Your task to perform on an android device: Play the last video I watched on Youtube Image 0: 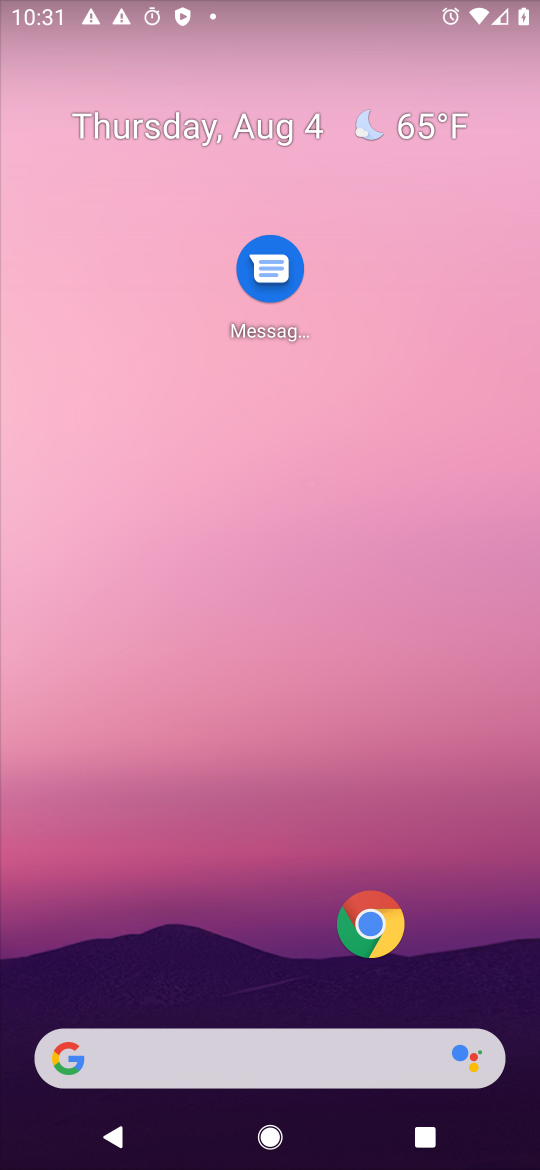
Step 0: drag from (250, 963) to (226, 181)
Your task to perform on an android device: Play the last video I watched on Youtube Image 1: 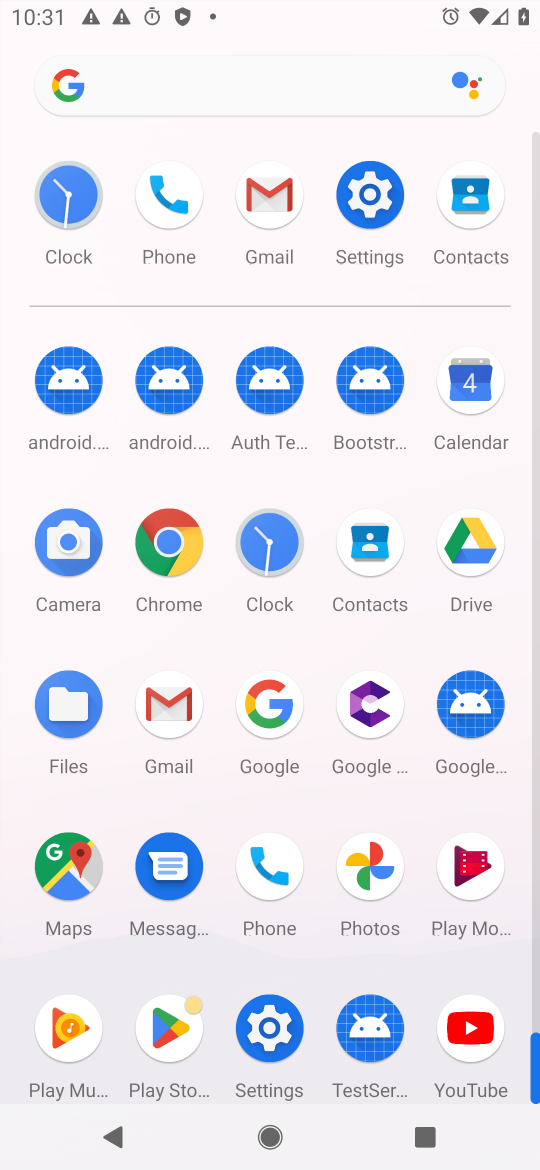
Step 1: click (461, 1033)
Your task to perform on an android device: Play the last video I watched on Youtube Image 2: 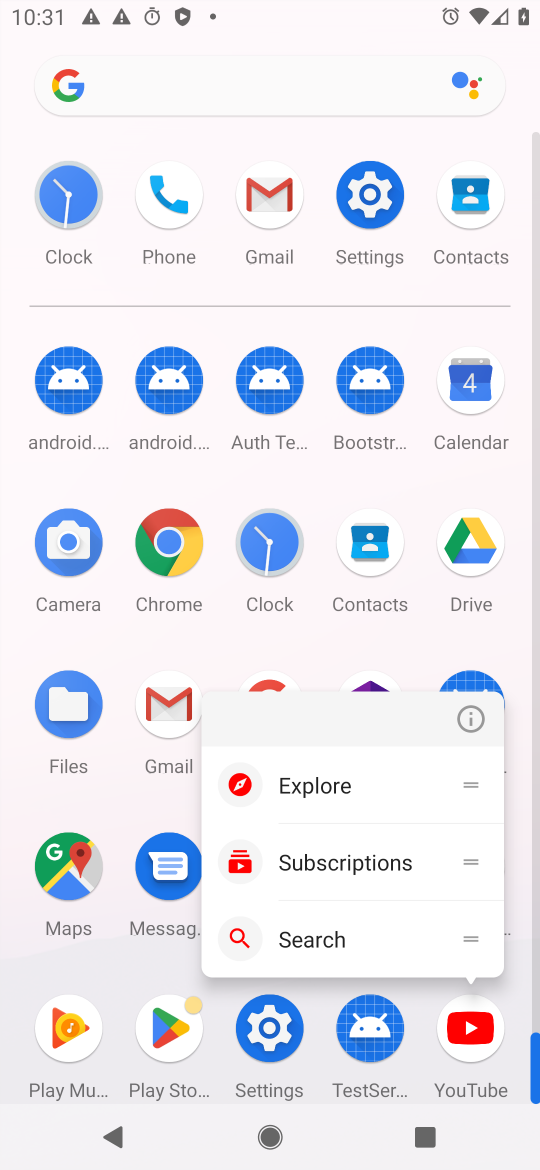
Step 2: click (464, 696)
Your task to perform on an android device: Play the last video I watched on Youtube Image 3: 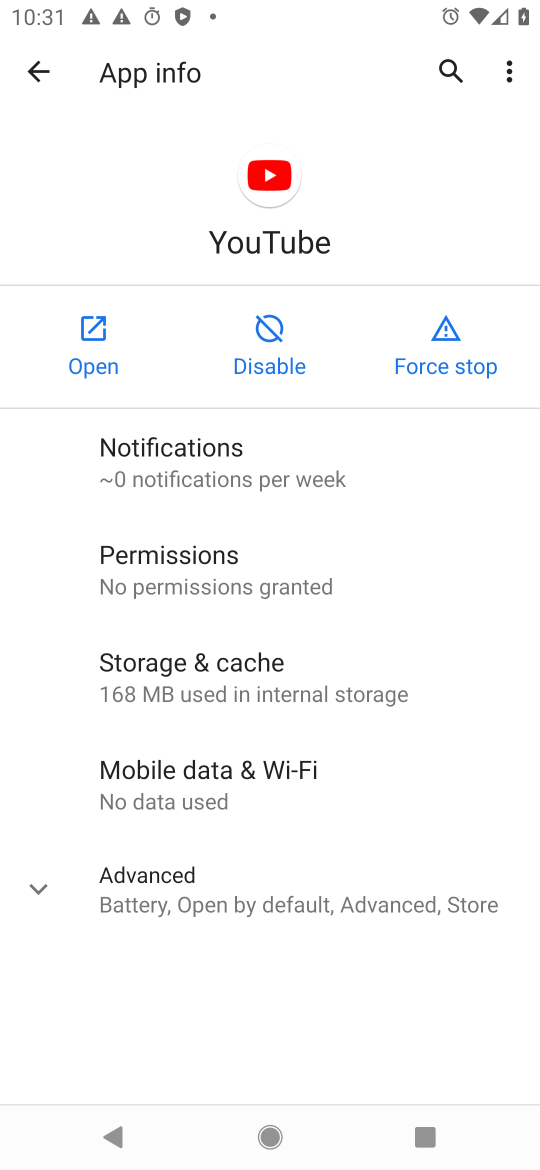
Step 3: click (95, 334)
Your task to perform on an android device: Play the last video I watched on Youtube Image 4: 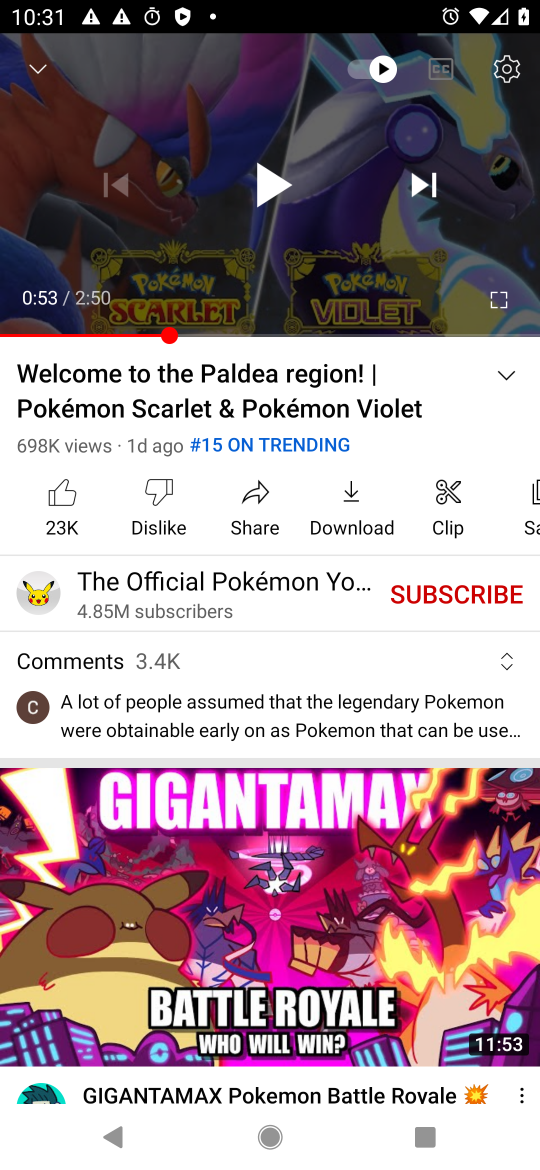
Step 4: drag from (270, 751) to (347, 317)
Your task to perform on an android device: Play the last video I watched on Youtube Image 5: 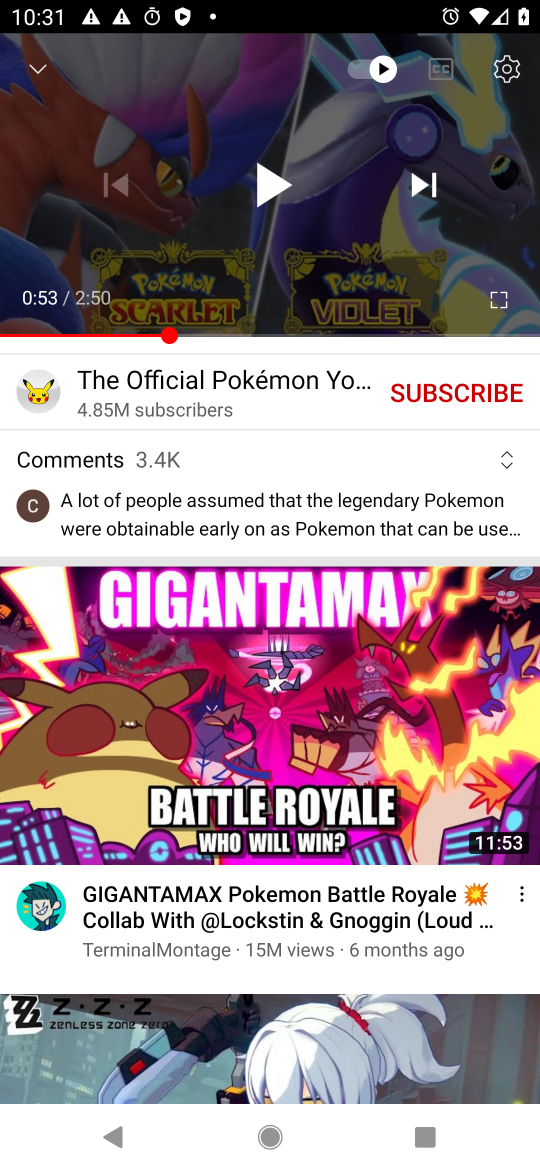
Step 5: drag from (207, 814) to (297, 432)
Your task to perform on an android device: Play the last video I watched on Youtube Image 6: 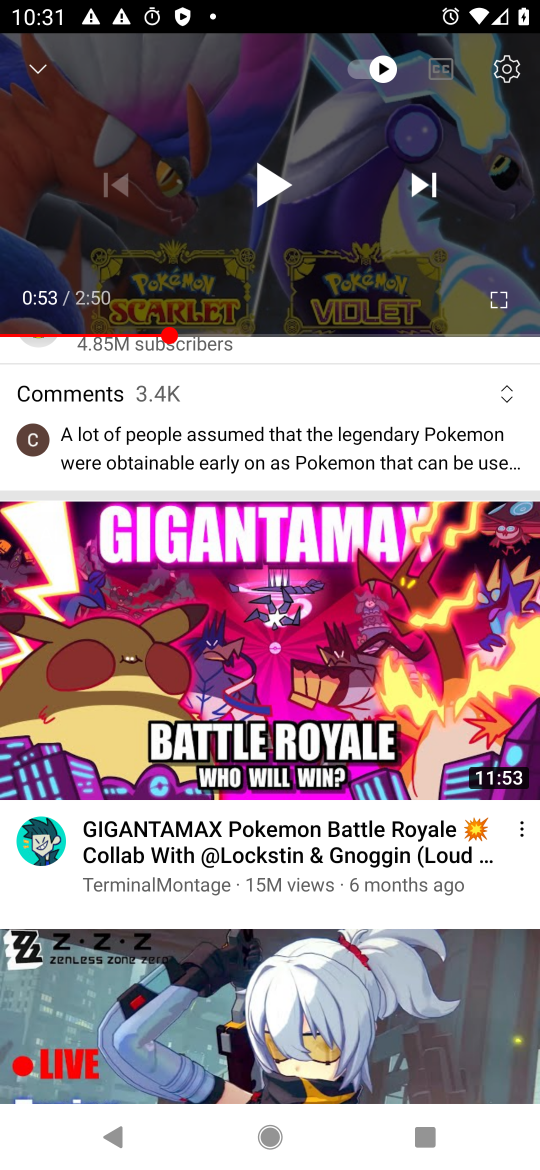
Step 6: drag from (200, 926) to (272, 501)
Your task to perform on an android device: Play the last video I watched on Youtube Image 7: 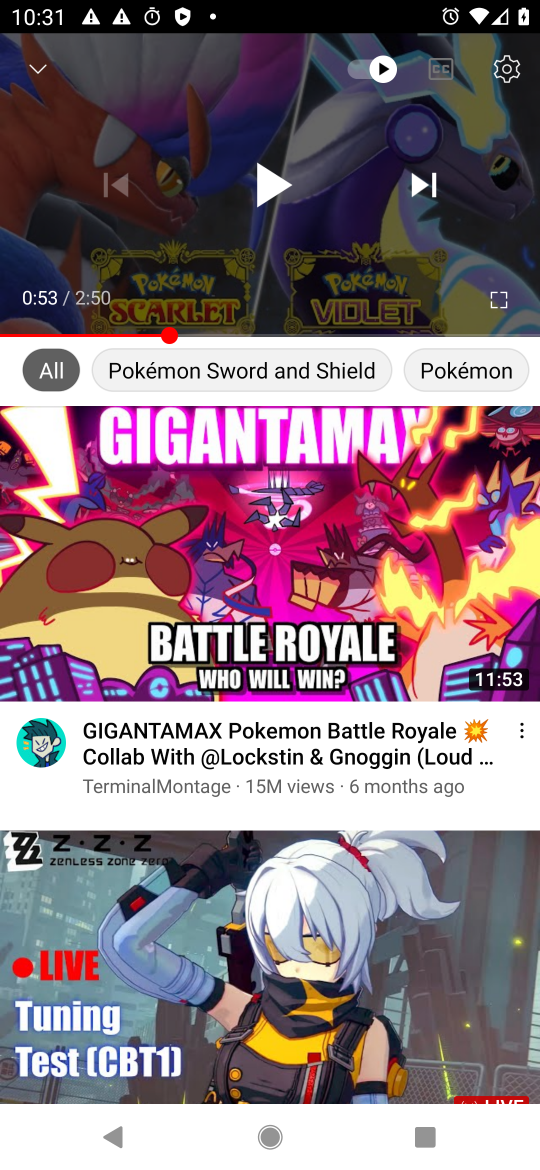
Step 7: drag from (320, 733) to (343, 674)
Your task to perform on an android device: Play the last video I watched on Youtube Image 8: 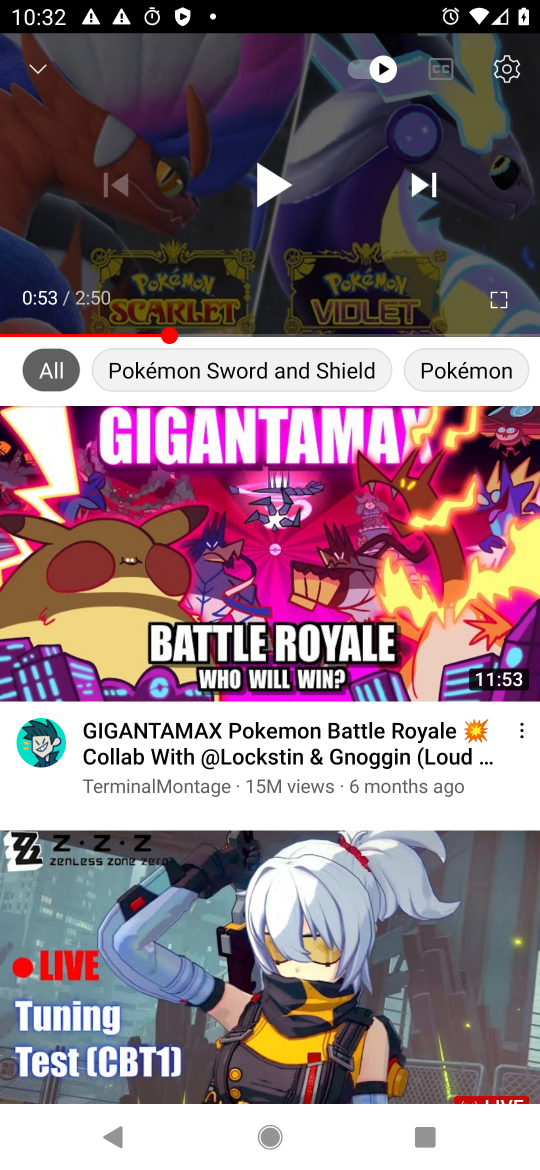
Step 8: drag from (352, 697) to (490, 411)
Your task to perform on an android device: Play the last video I watched on Youtube Image 9: 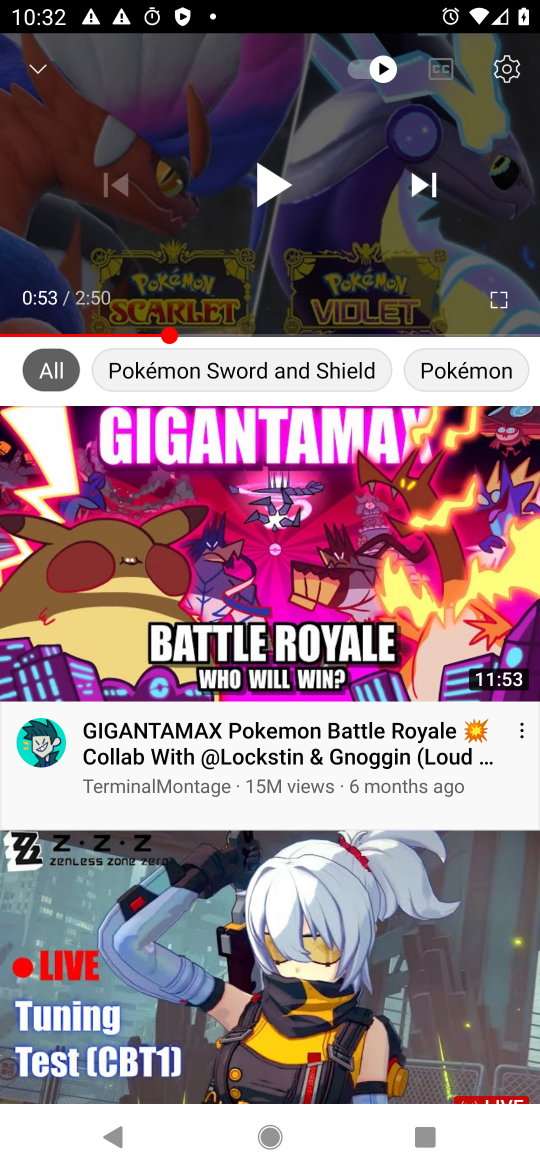
Step 9: drag from (344, 161) to (406, 1135)
Your task to perform on an android device: Play the last video I watched on Youtube Image 10: 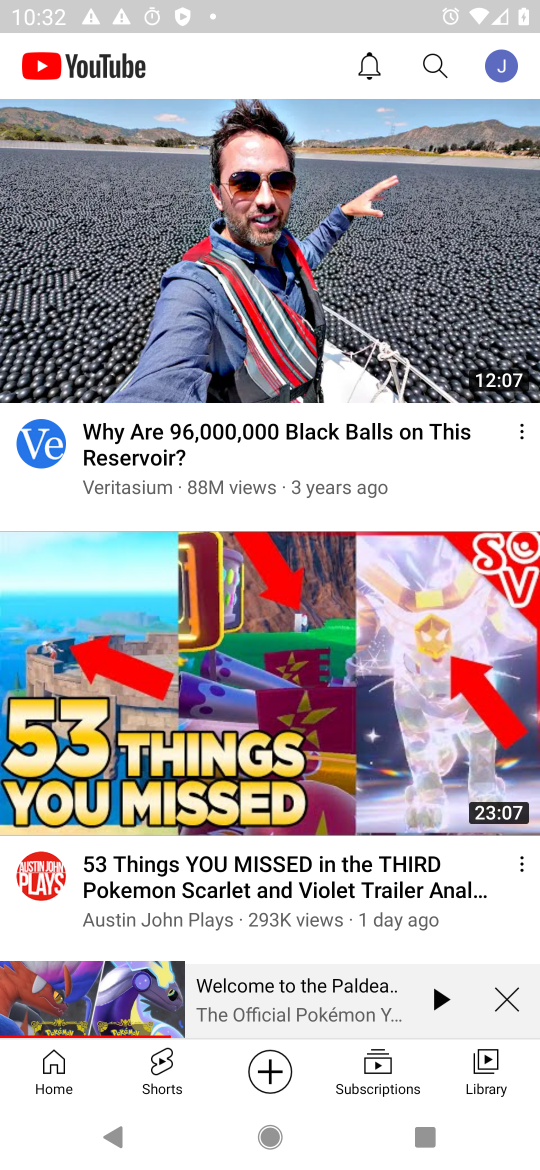
Step 10: click (477, 1067)
Your task to perform on an android device: Play the last video I watched on Youtube Image 11: 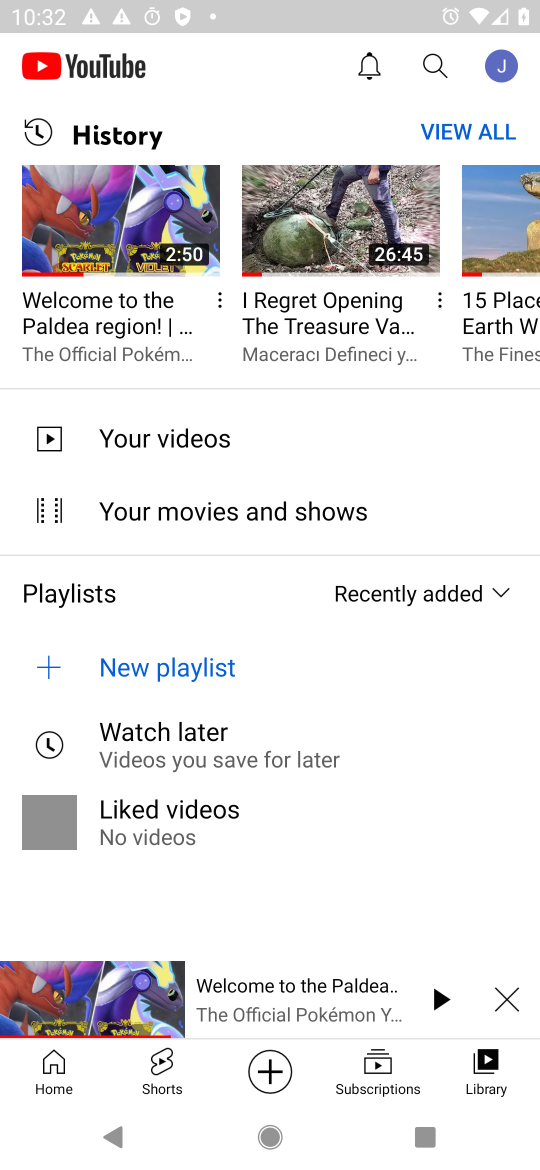
Step 11: click (116, 205)
Your task to perform on an android device: Play the last video I watched on Youtube Image 12: 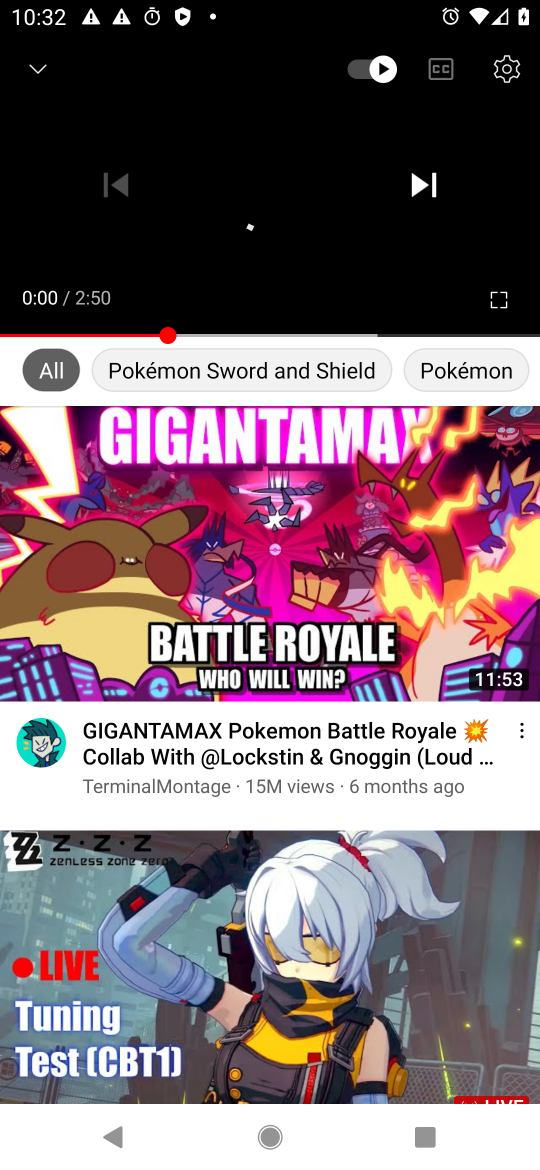
Step 12: task complete